Your task to perform on an android device: Open calendar and show me the second week of next month Image 0: 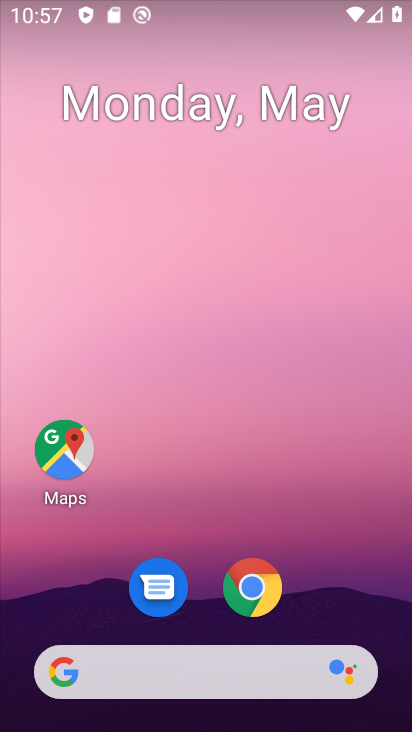
Step 0: drag from (224, 708) to (145, 201)
Your task to perform on an android device: Open calendar and show me the second week of next month Image 1: 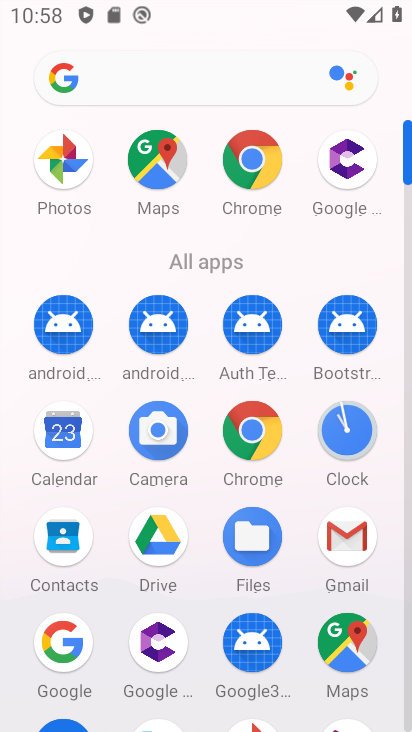
Step 1: click (71, 442)
Your task to perform on an android device: Open calendar and show me the second week of next month Image 2: 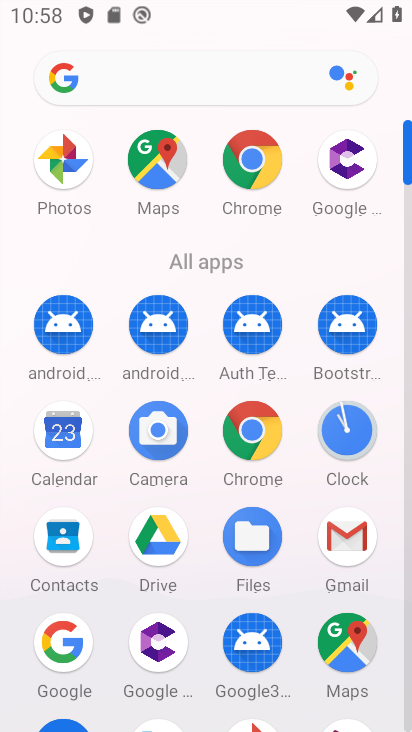
Step 2: click (71, 442)
Your task to perform on an android device: Open calendar and show me the second week of next month Image 3: 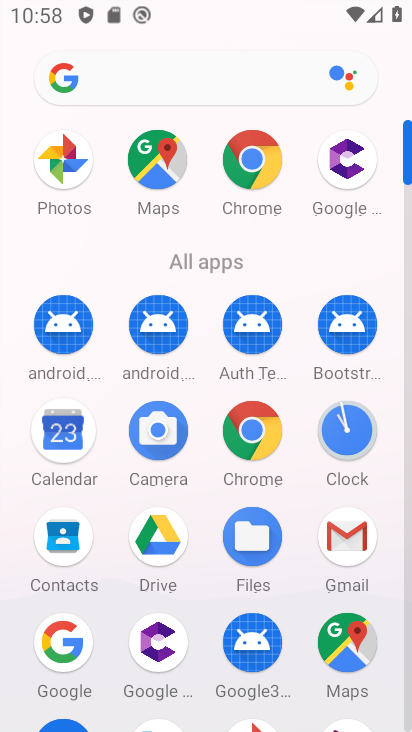
Step 3: click (69, 441)
Your task to perform on an android device: Open calendar and show me the second week of next month Image 4: 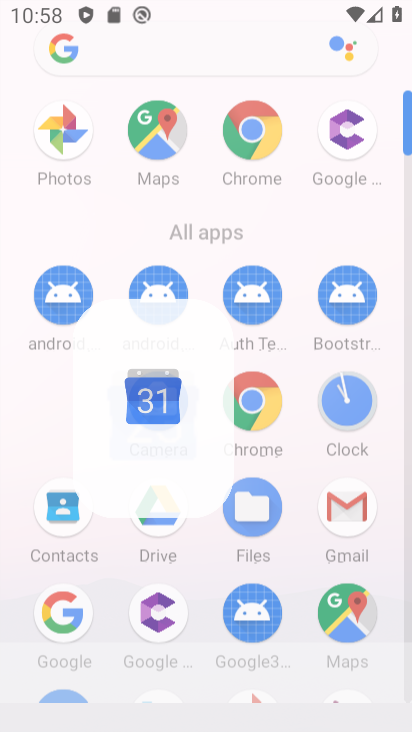
Step 4: click (69, 441)
Your task to perform on an android device: Open calendar and show me the second week of next month Image 5: 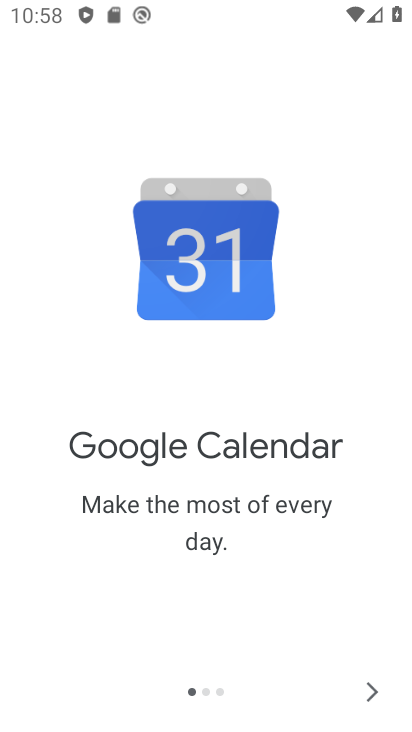
Step 5: drag from (367, 667) to (382, 706)
Your task to perform on an android device: Open calendar and show me the second week of next month Image 6: 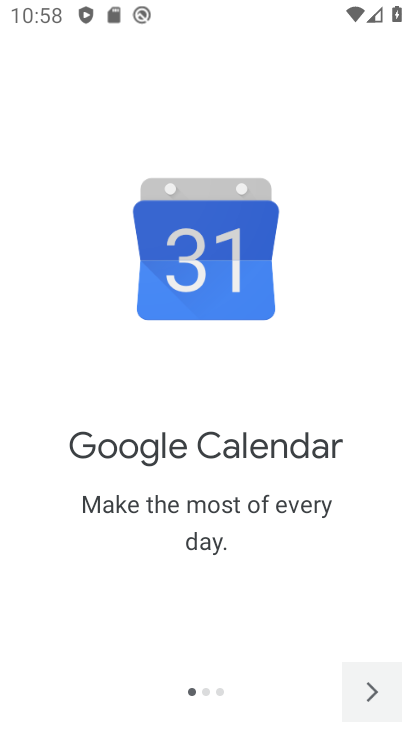
Step 6: click (381, 705)
Your task to perform on an android device: Open calendar and show me the second week of next month Image 7: 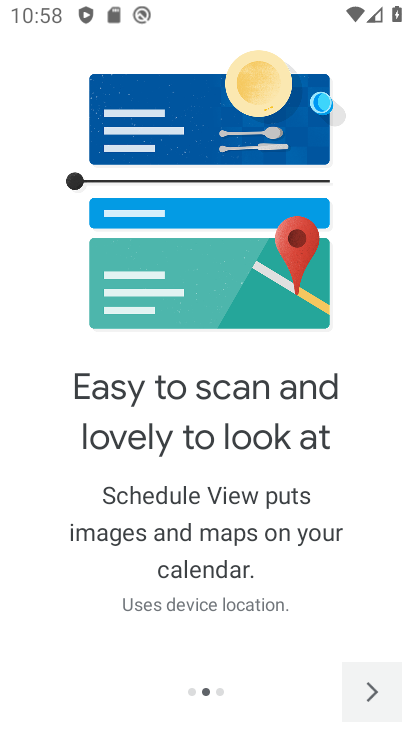
Step 7: click (377, 701)
Your task to perform on an android device: Open calendar and show me the second week of next month Image 8: 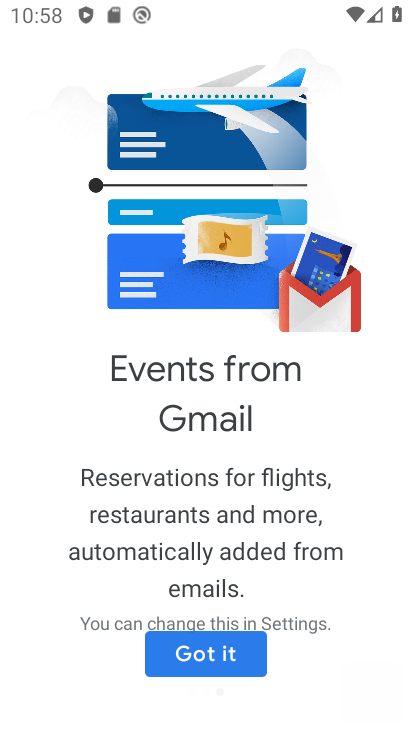
Step 8: click (374, 696)
Your task to perform on an android device: Open calendar and show me the second week of next month Image 9: 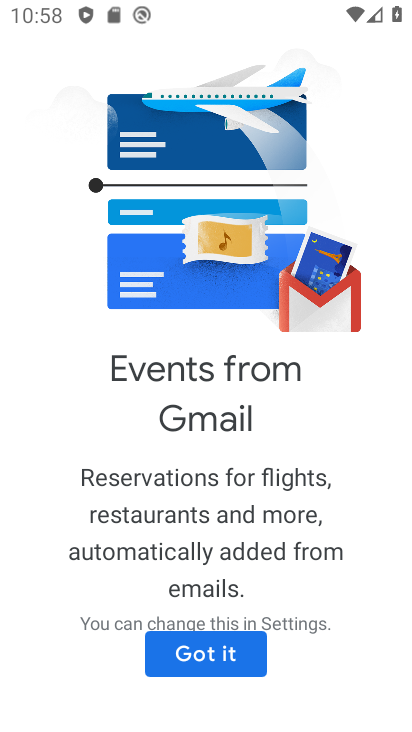
Step 9: click (374, 696)
Your task to perform on an android device: Open calendar and show me the second week of next month Image 10: 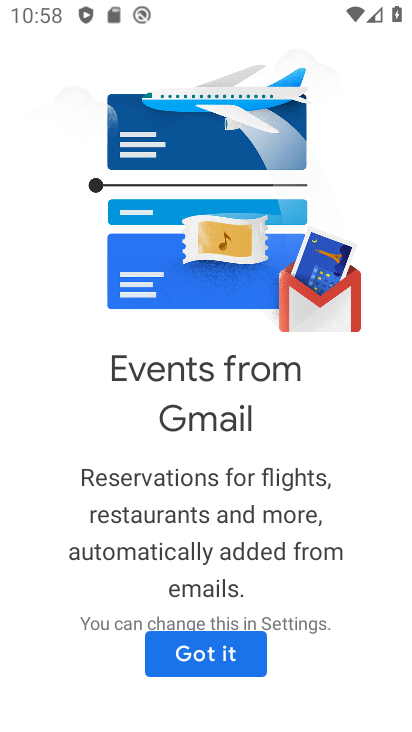
Step 10: click (374, 696)
Your task to perform on an android device: Open calendar and show me the second week of next month Image 11: 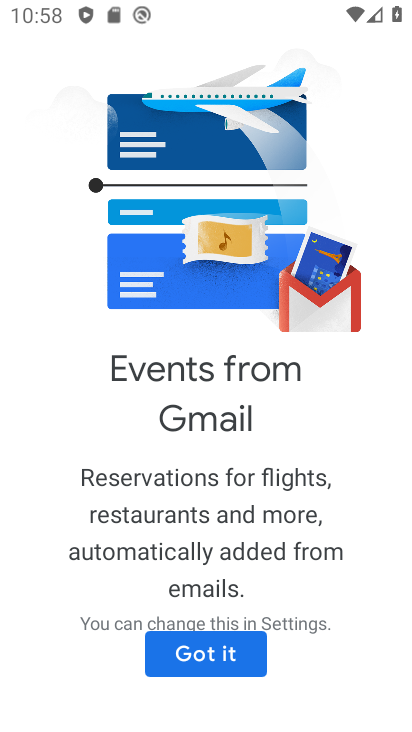
Step 11: click (205, 627)
Your task to perform on an android device: Open calendar and show me the second week of next month Image 12: 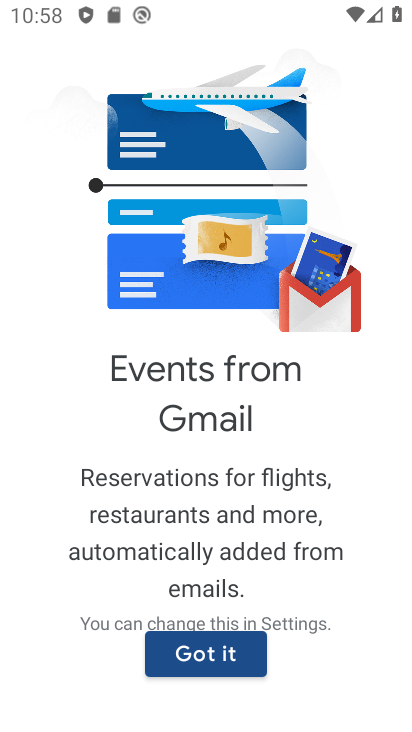
Step 12: click (205, 643)
Your task to perform on an android device: Open calendar and show me the second week of next month Image 13: 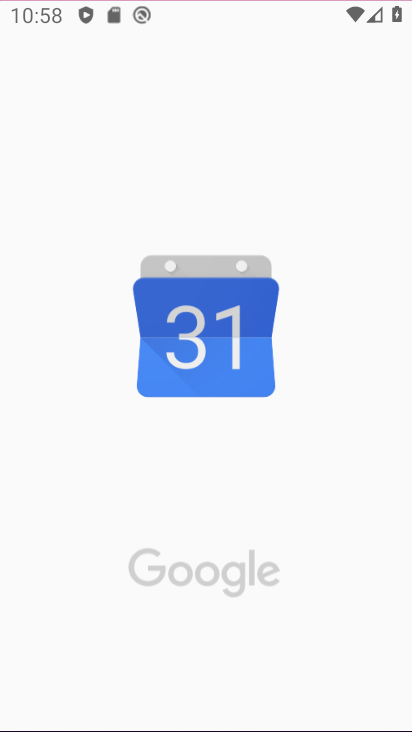
Step 13: click (206, 647)
Your task to perform on an android device: Open calendar and show me the second week of next month Image 14: 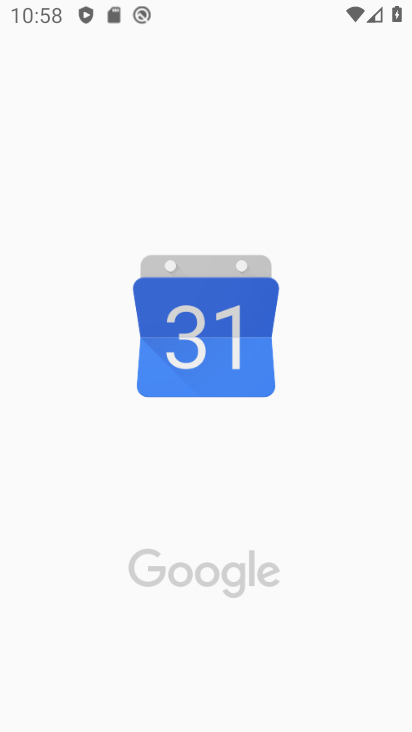
Step 14: click (207, 645)
Your task to perform on an android device: Open calendar and show me the second week of next month Image 15: 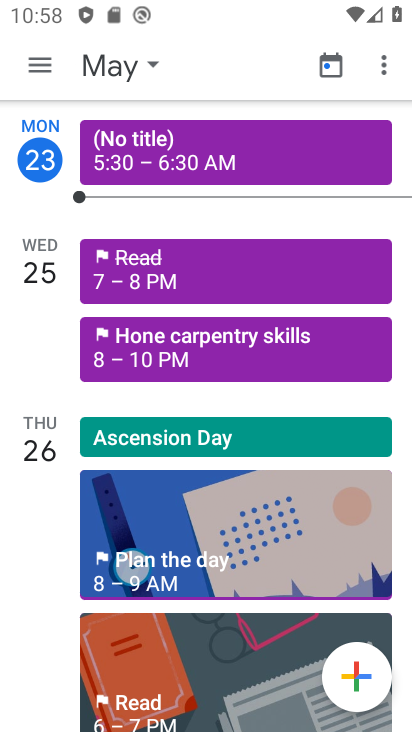
Step 15: click (155, 67)
Your task to perform on an android device: Open calendar and show me the second week of next month Image 16: 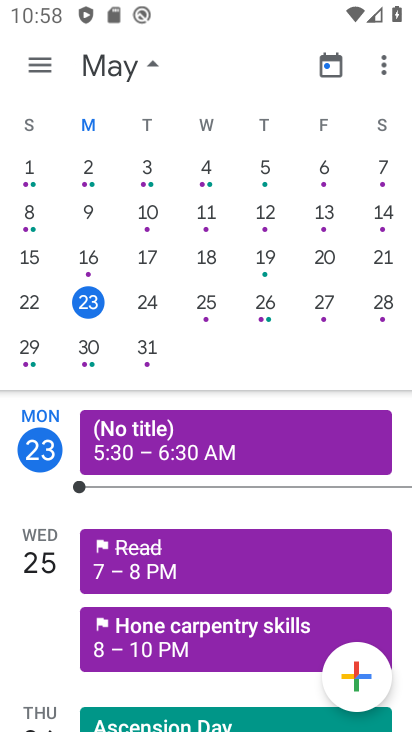
Step 16: drag from (259, 247) to (3, 224)
Your task to perform on an android device: Open calendar and show me the second week of next month Image 17: 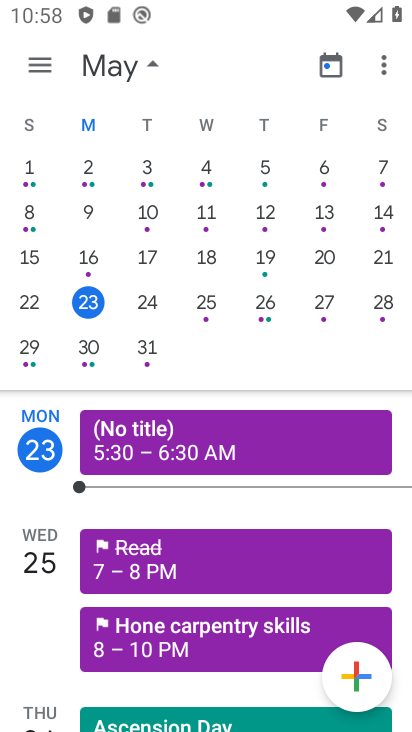
Step 17: drag from (231, 271) to (0, 606)
Your task to perform on an android device: Open calendar and show me the second week of next month Image 18: 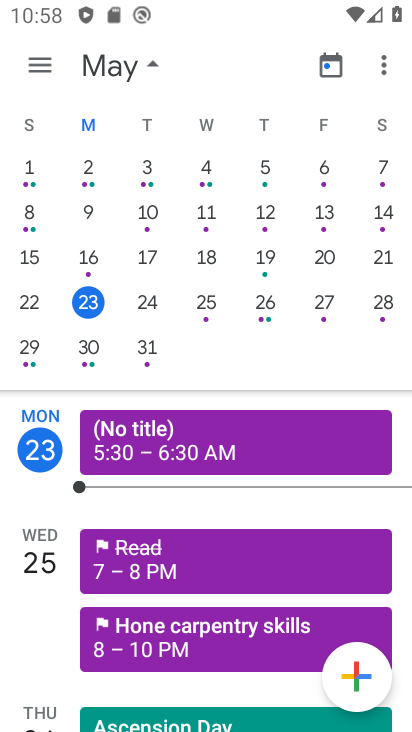
Step 18: drag from (279, 268) to (155, 352)
Your task to perform on an android device: Open calendar and show me the second week of next month Image 19: 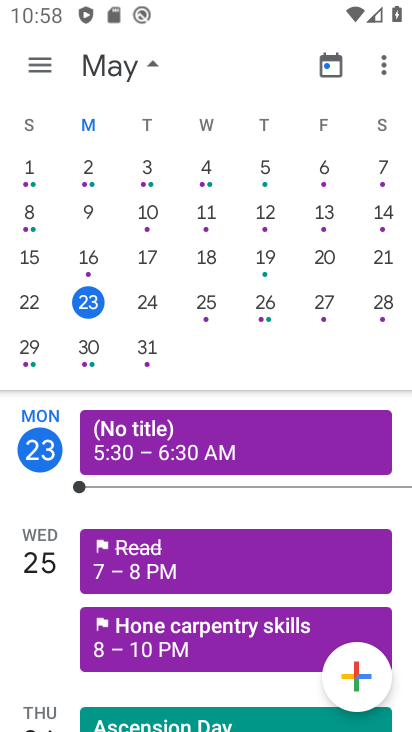
Step 19: drag from (347, 268) to (62, 325)
Your task to perform on an android device: Open calendar and show me the second week of next month Image 20: 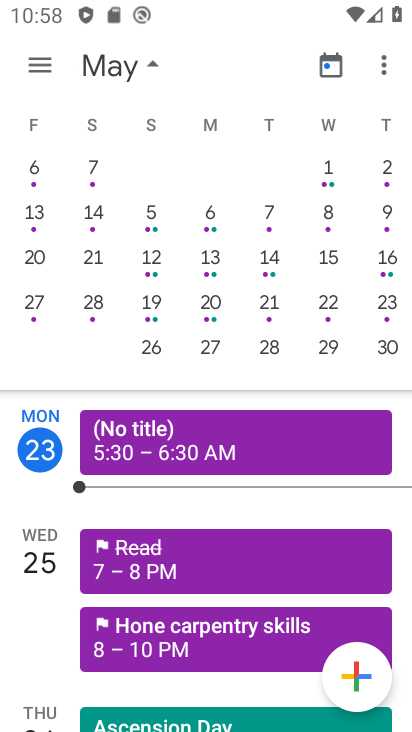
Step 20: drag from (252, 463) to (102, 472)
Your task to perform on an android device: Open calendar and show me the second week of next month Image 21: 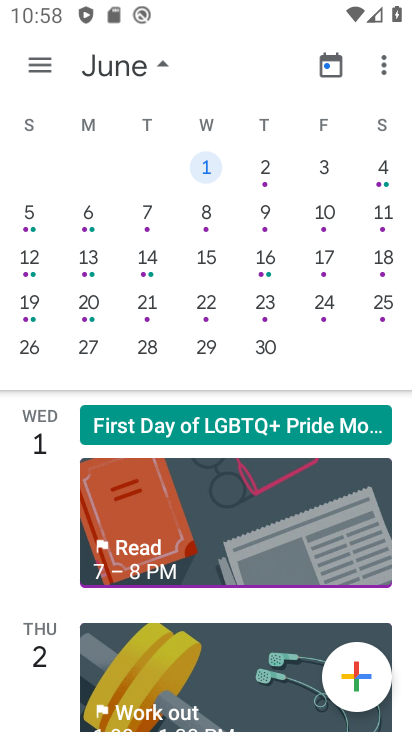
Step 21: click (209, 213)
Your task to perform on an android device: Open calendar and show me the second week of next month Image 22: 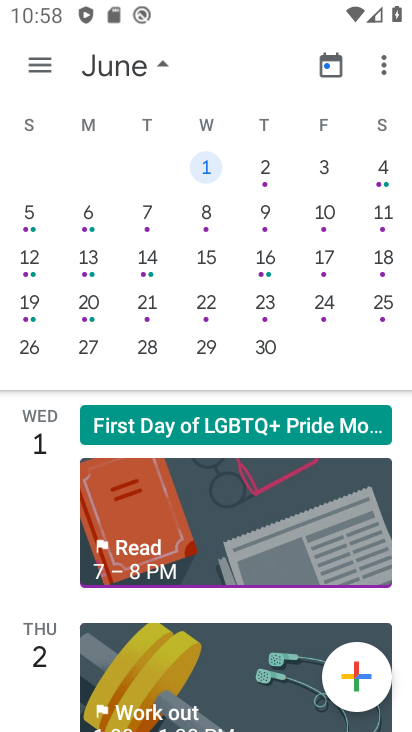
Step 22: click (207, 213)
Your task to perform on an android device: Open calendar and show me the second week of next month Image 23: 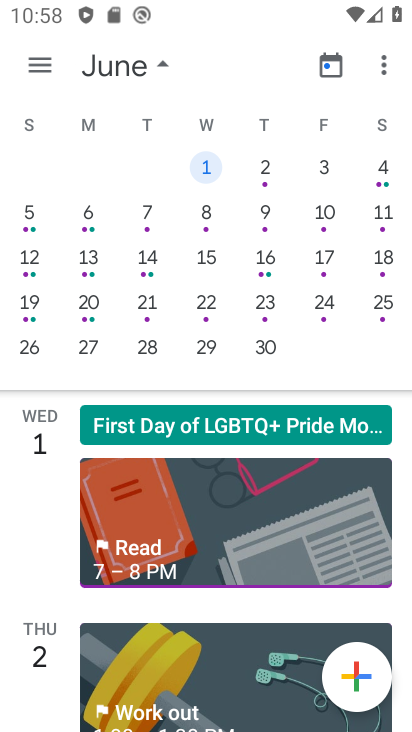
Step 23: click (214, 202)
Your task to perform on an android device: Open calendar and show me the second week of next month Image 24: 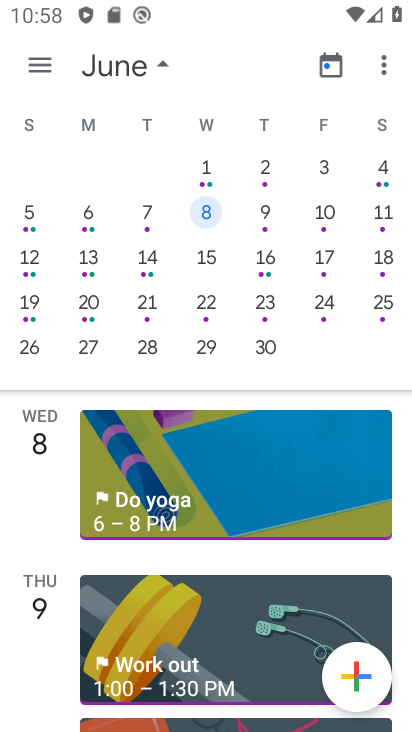
Step 24: task complete